Your task to perform on an android device: Search for a 3D printer on aliexpress. Image 0: 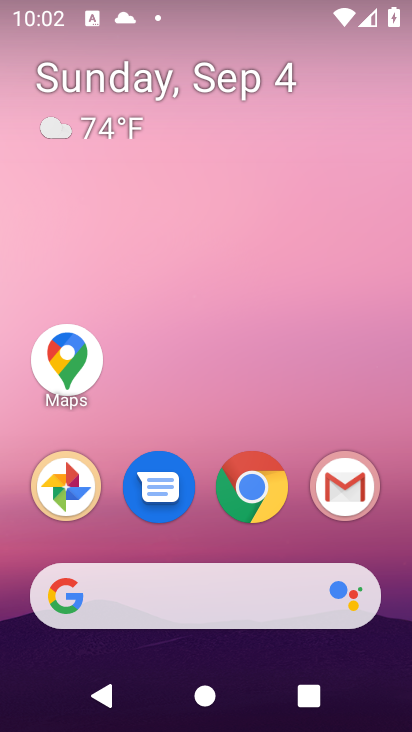
Step 0: click (171, 593)
Your task to perform on an android device: Search for a 3D printer on aliexpress. Image 1: 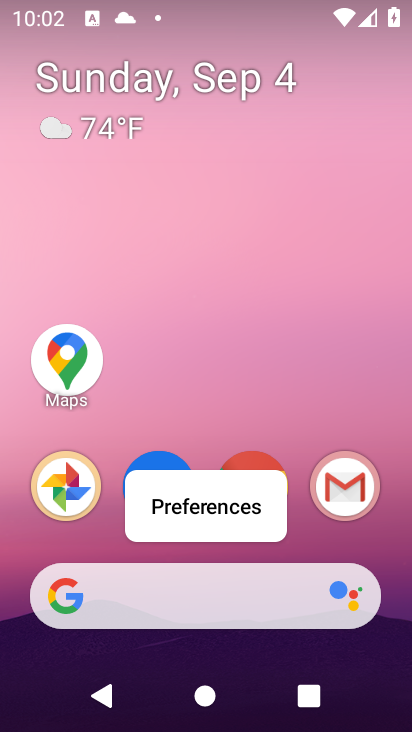
Step 1: click (174, 595)
Your task to perform on an android device: Search for a 3D printer on aliexpress. Image 2: 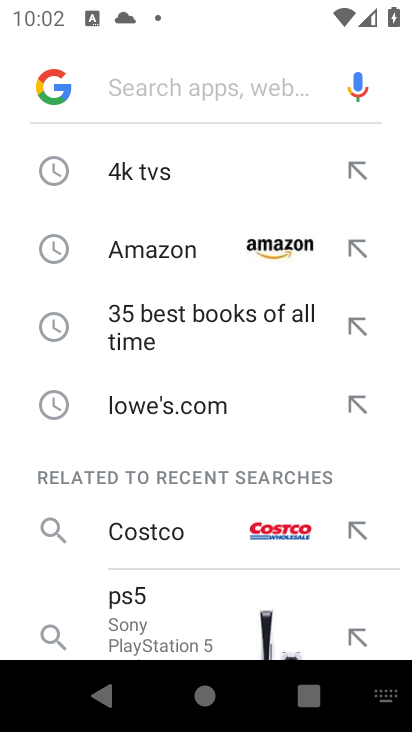
Step 2: type "aliexpress."
Your task to perform on an android device: Search for a 3D printer on aliexpress. Image 3: 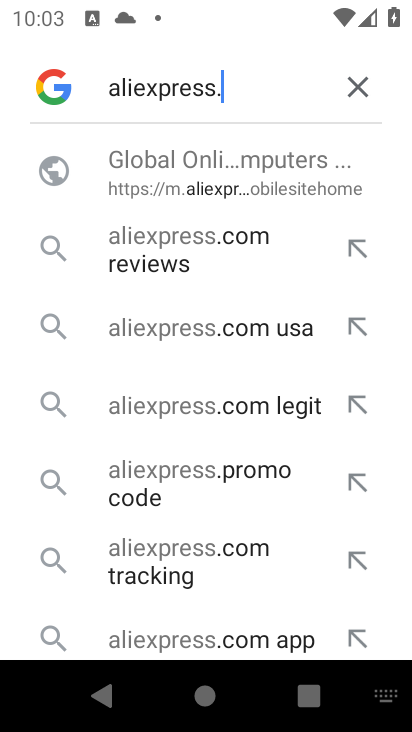
Step 3: click (220, 184)
Your task to perform on an android device: Search for a 3D printer on aliexpress. Image 4: 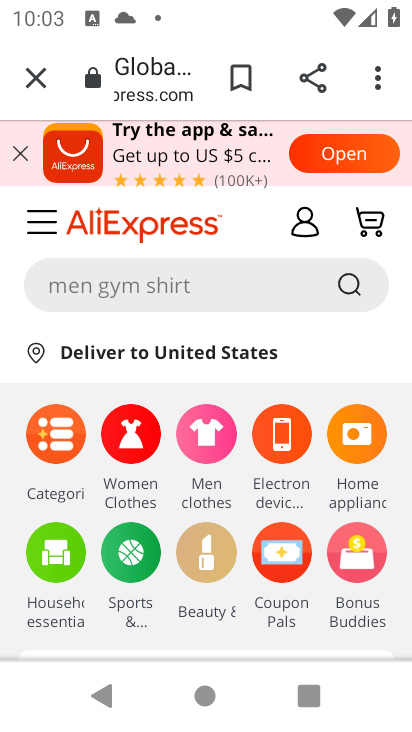
Step 4: click (209, 269)
Your task to perform on an android device: Search for a 3D printer on aliexpress. Image 5: 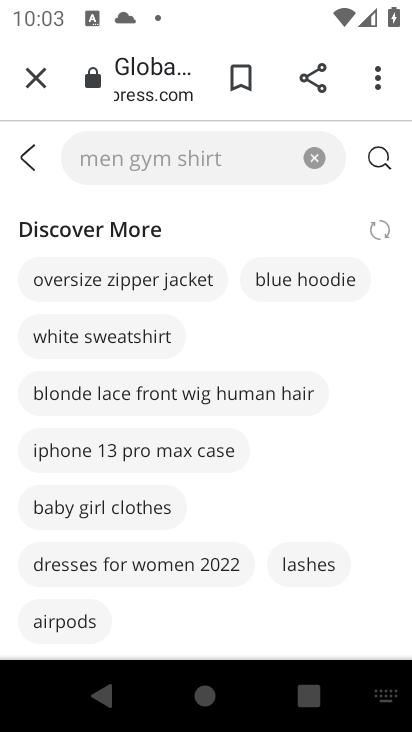
Step 5: type "3D printer"
Your task to perform on an android device: Search for a 3D printer on aliexpress. Image 6: 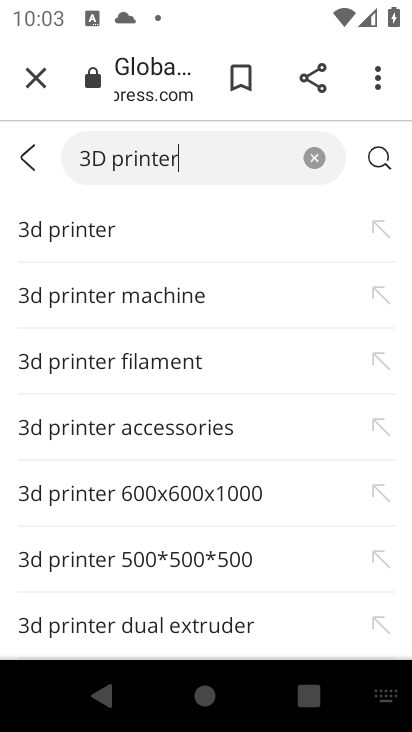
Step 6: click (278, 247)
Your task to perform on an android device: Search for a 3D printer on aliexpress. Image 7: 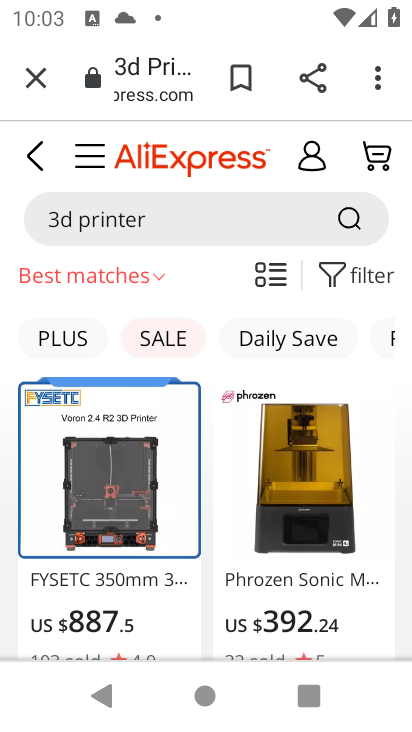
Step 7: task complete